Your task to perform on an android device: Go to CNN.com Image 0: 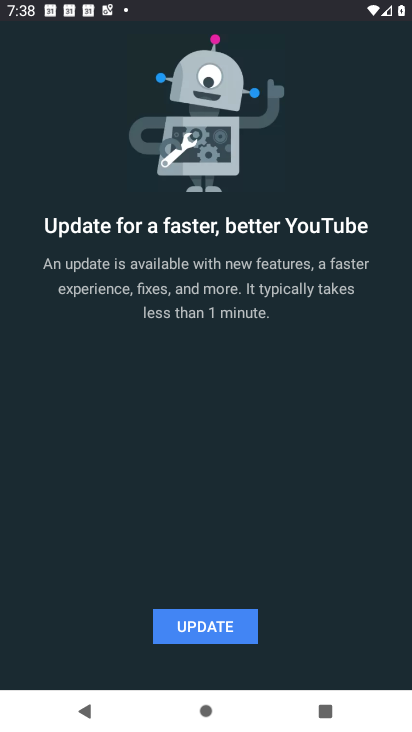
Step 0: press home button
Your task to perform on an android device: Go to CNN.com Image 1: 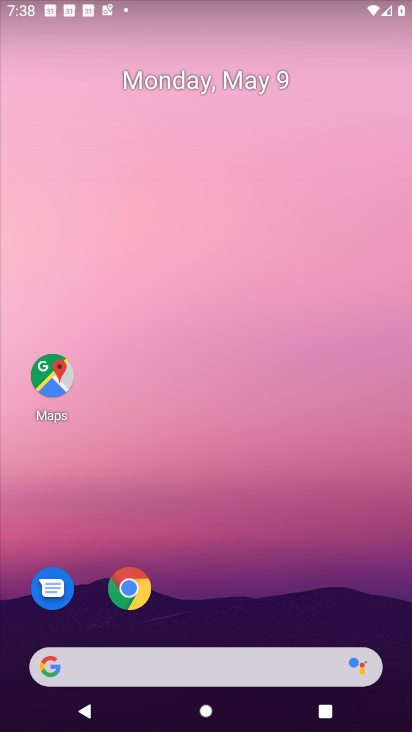
Step 1: drag from (128, 673) to (328, 0)
Your task to perform on an android device: Go to CNN.com Image 2: 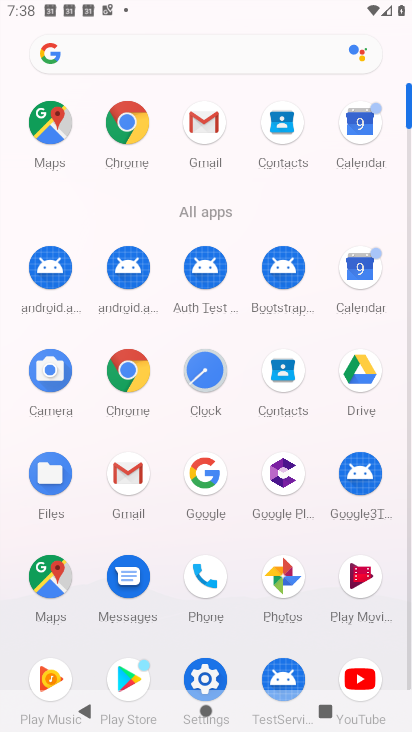
Step 2: click (128, 130)
Your task to perform on an android device: Go to CNN.com Image 3: 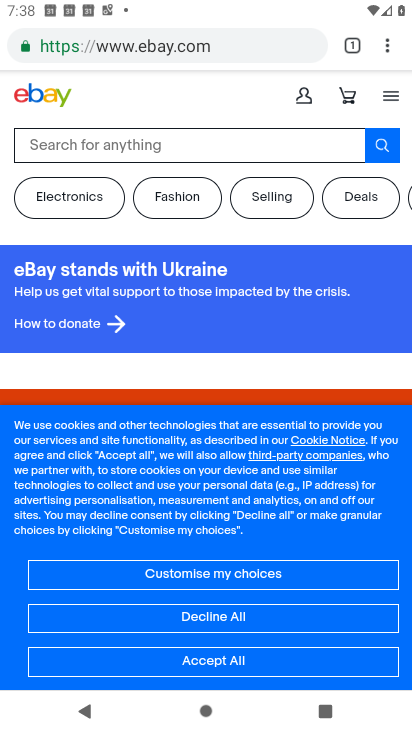
Step 3: drag from (387, 51) to (291, 86)
Your task to perform on an android device: Go to CNN.com Image 4: 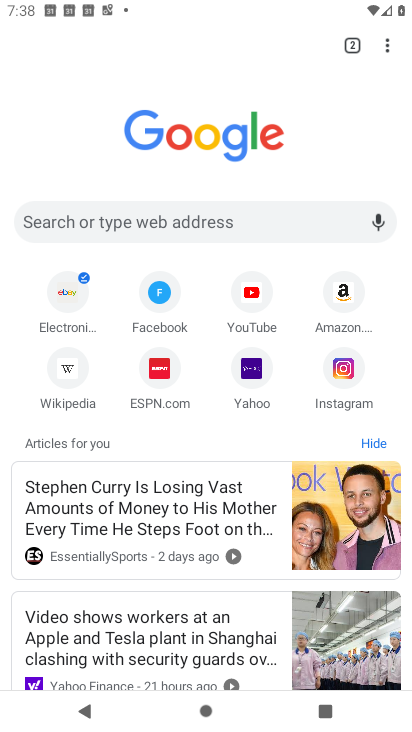
Step 4: click (81, 220)
Your task to perform on an android device: Go to CNN.com Image 5: 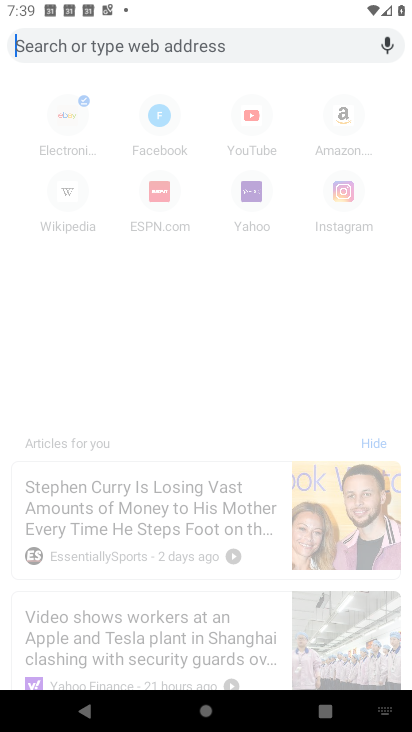
Step 5: type "cnn.com"
Your task to perform on an android device: Go to CNN.com Image 6: 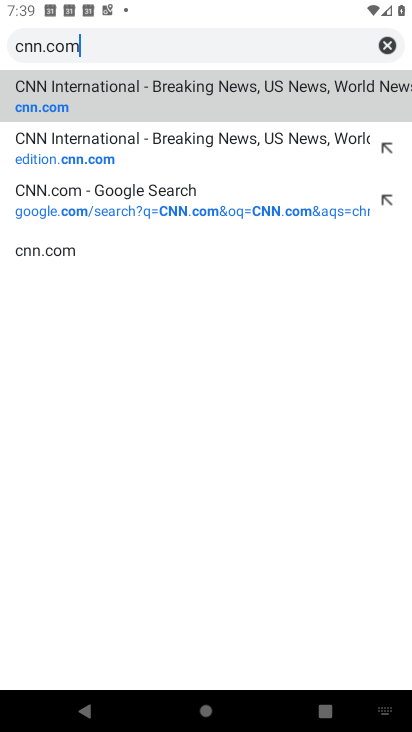
Step 6: click (145, 96)
Your task to perform on an android device: Go to CNN.com Image 7: 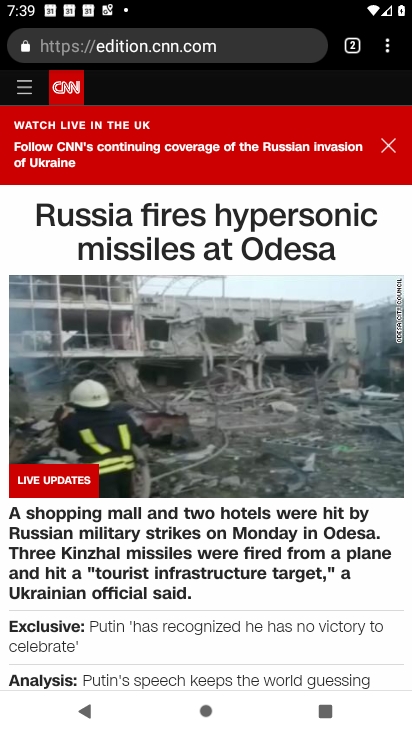
Step 7: task complete